Your task to perform on an android device: Open the phone app and click the voicemail tab. Image 0: 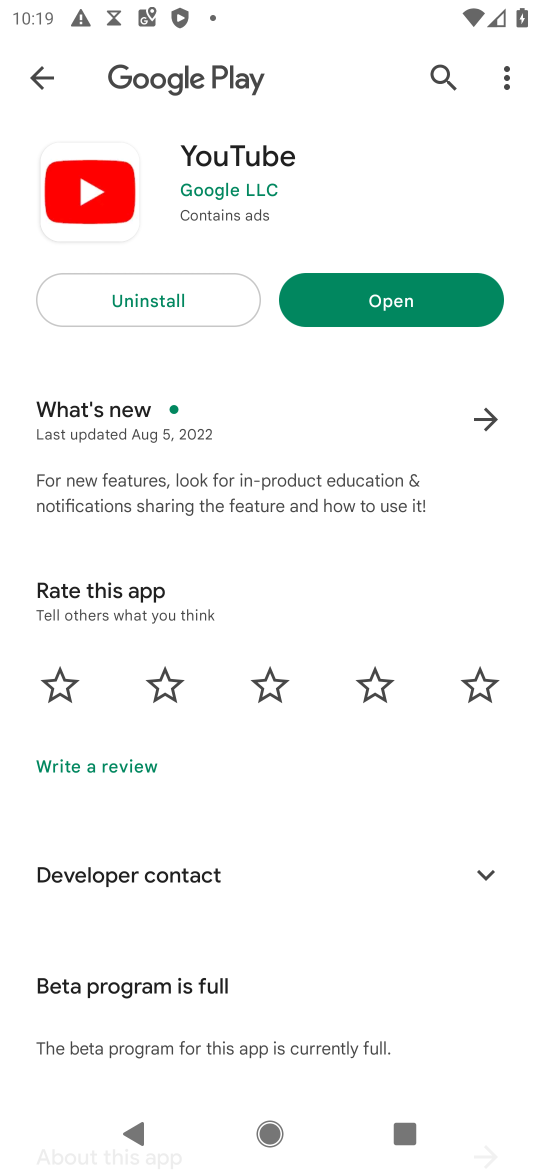
Step 0: press home button
Your task to perform on an android device: Open the phone app and click the voicemail tab. Image 1: 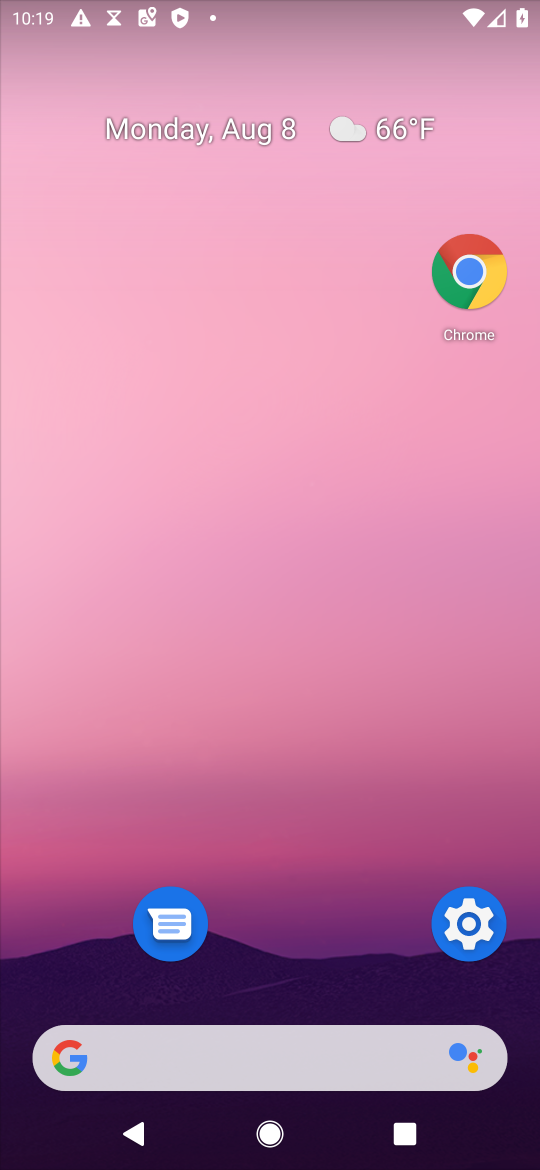
Step 1: drag from (287, 1042) to (297, 199)
Your task to perform on an android device: Open the phone app and click the voicemail tab. Image 2: 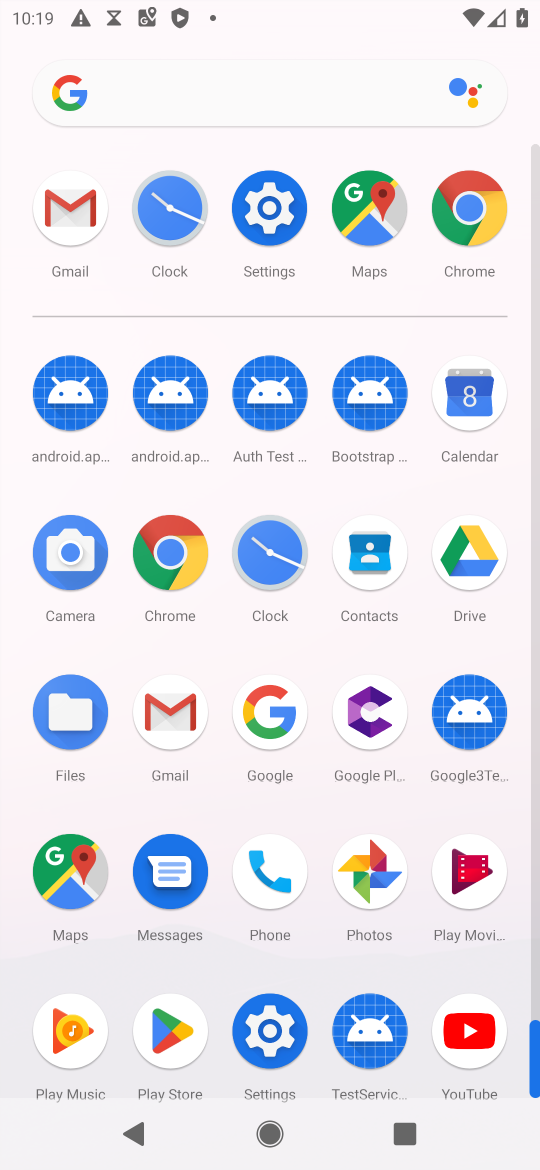
Step 2: click (284, 899)
Your task to perform on an android device: Open the phone app and click the voicemail tab. Image 3: 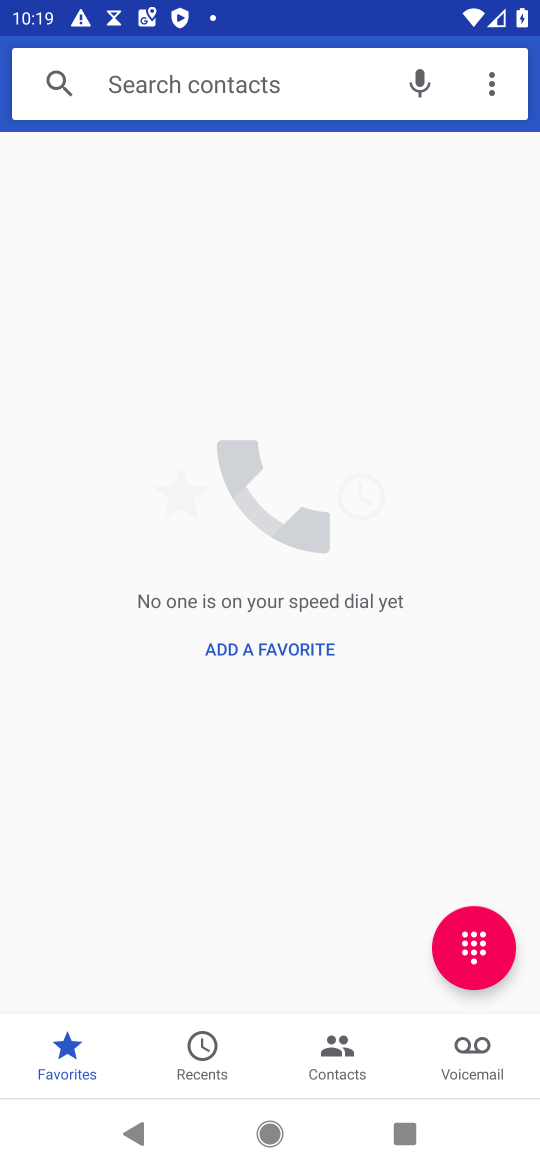
Step 3: click (466, 1077)
Your task to perform on an android device: Open the phone app and click the voicemail tab. Image 4: 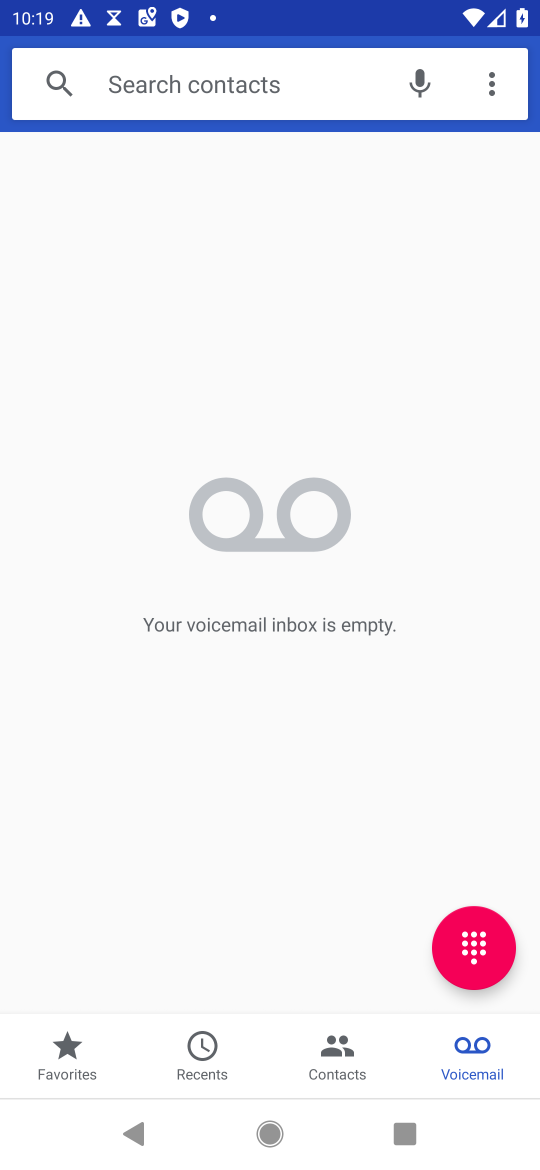
Step 4: task complete